Your task to perform on an android device: Open my contact list Image 0: 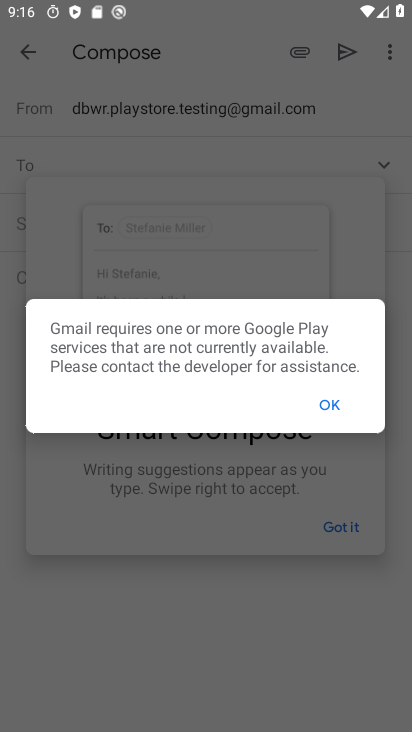
Step 0: press home button
Your task to perform on an android device: Open my contact list Image 1: 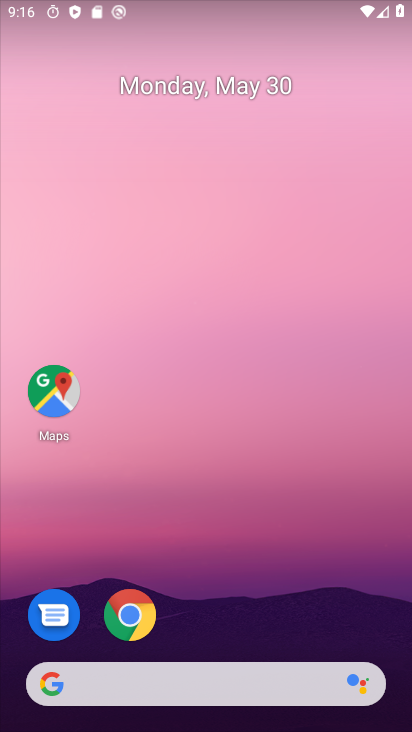
Step 1: drag from (141, 730) to (290, 214)
Your task to perform on an android device: Open my contact list Image 2: 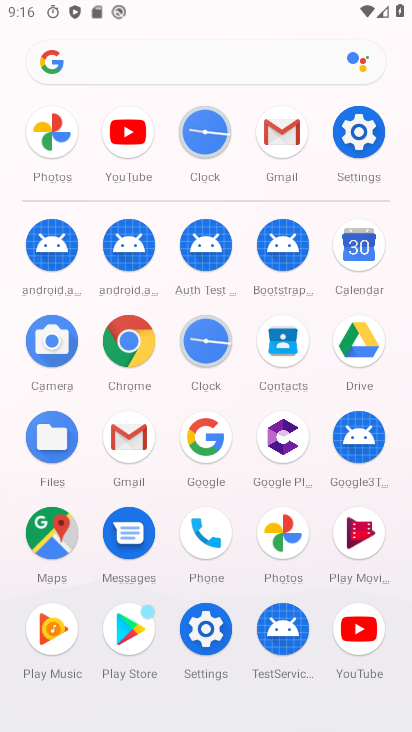
Step 2: click (288, 341)
Your task to perform on an android device: Open my contact list Image 3: 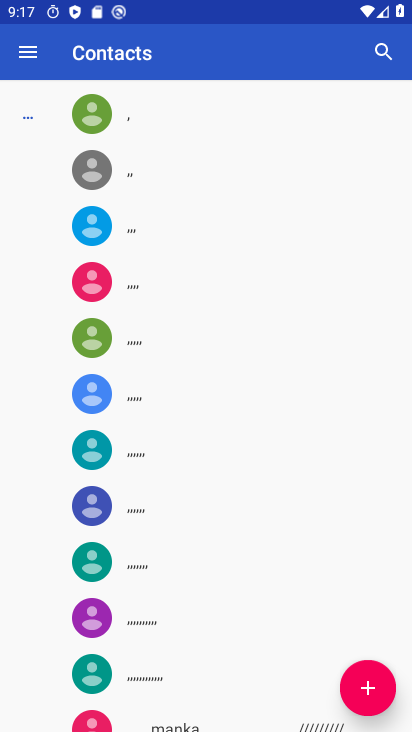
Step 3: drag from (196, 702) to (259, 243)
Your task to perform on an android device: Open my contact list Image 4: 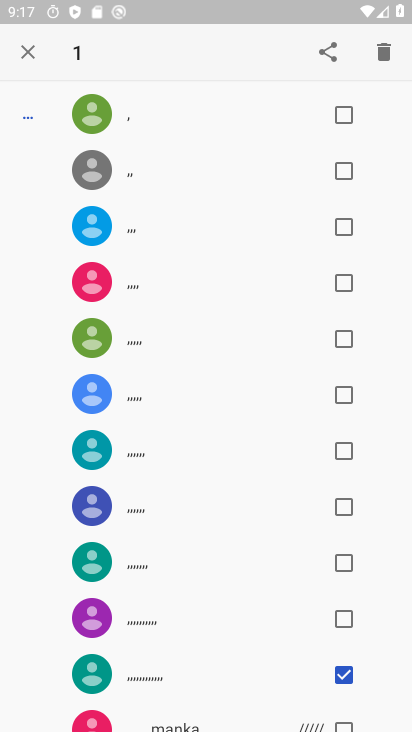
Step 4: click (38, 52)
Your task to perform on an android device: Open my contact list Image 5: 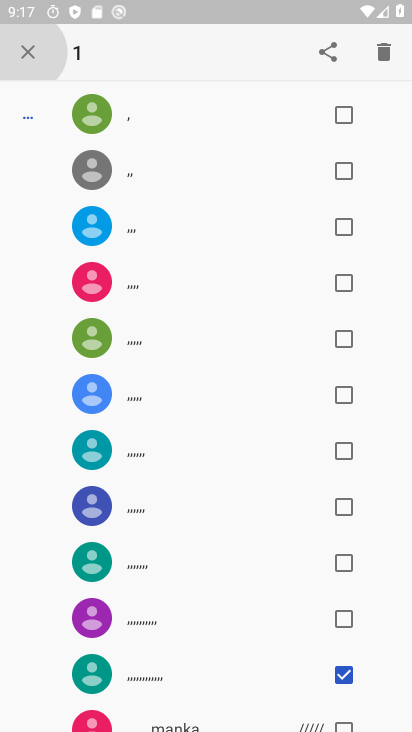
Step 5: task complete